Your task to perform on an android device: Is it going to rain this weekend? Image 0: 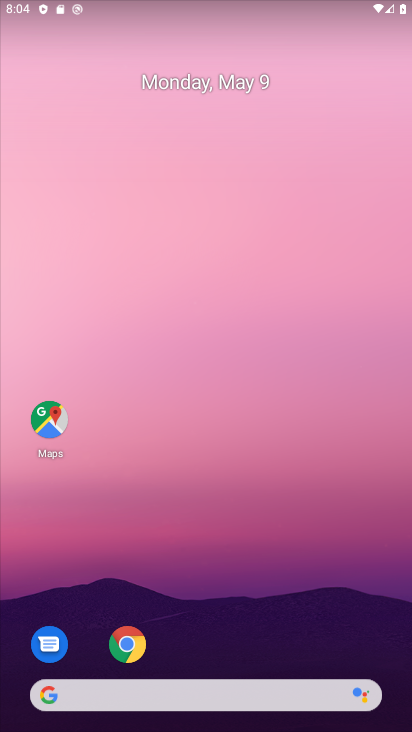
Step 0: drag from (289, 610) to (308, 147)
Your task to perform on an android device: Is it going to rain this weekend? Image 1: 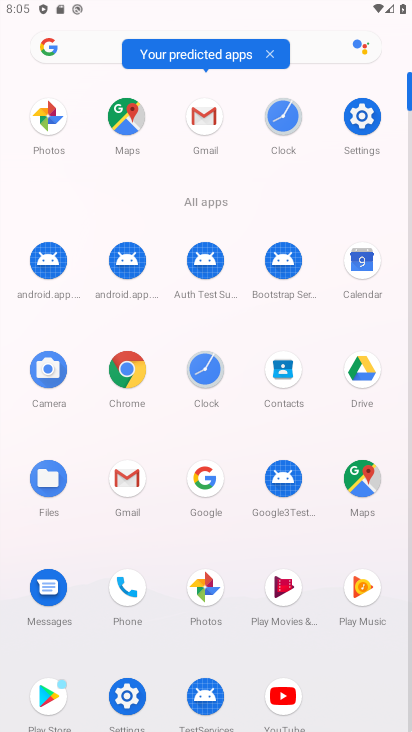
Step 1: click (113, 376)
Your task to perform on an android device: Is it going to rain this weekend? Image 2: 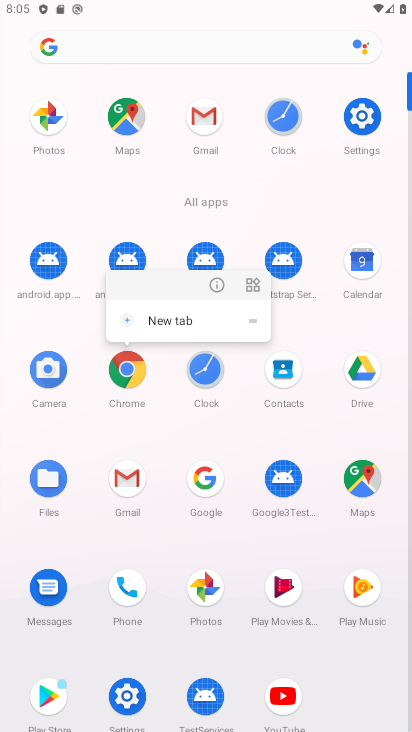
Step 2: click (126, 375)
Your task to perform on an android device: Is it going to rain this weekend? Image 3: 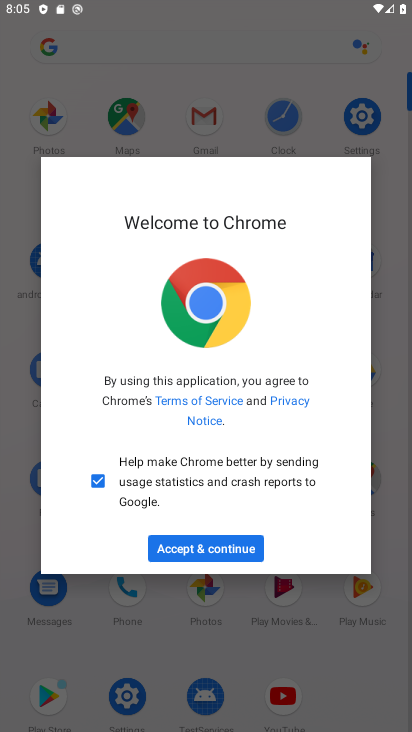
Step 3: click (228, 551)
Your task to perform on an android device: Is it going to rain this weekend? Image 4: 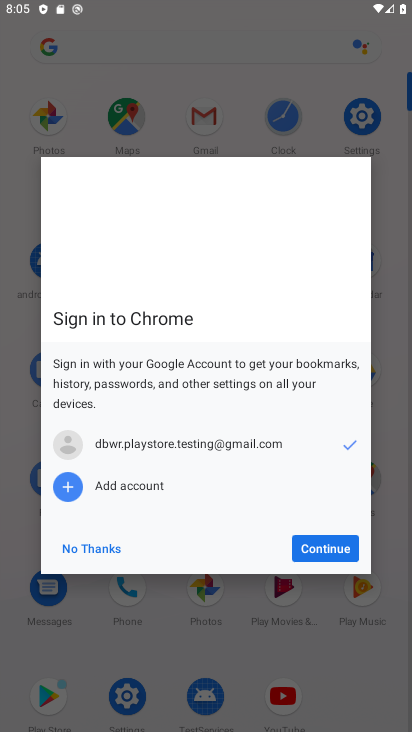
Step 4: click (312, 557)
Your task to perform on an android device: Is it going to rain this weekend? Image 5: 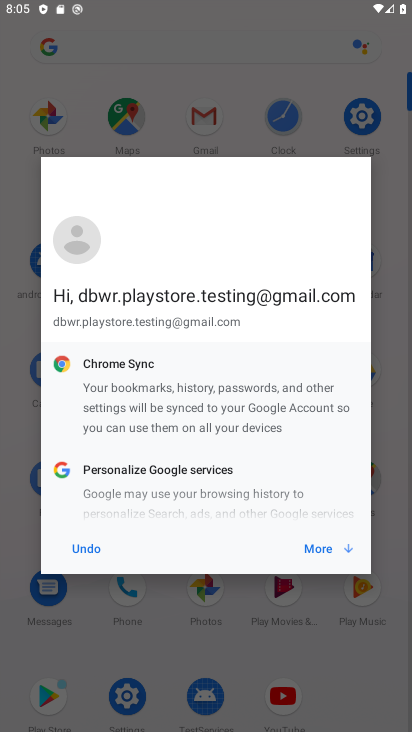
Step 5: click (312, 557)
Your task to perform on an android device: Is it going to rain this weekend? Image 6: 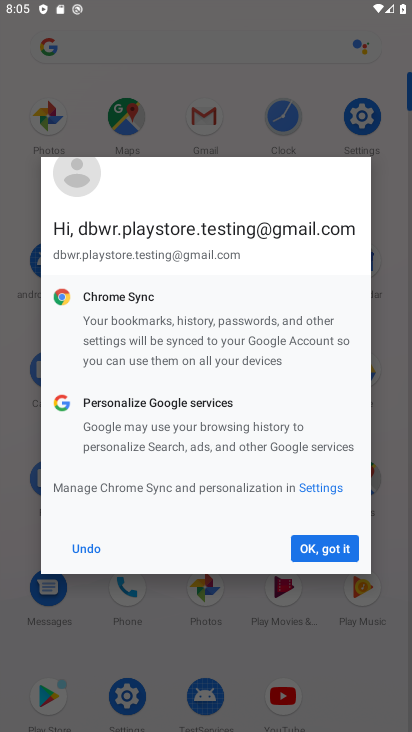
Step 6: click (312, 557)
Your task to perform on an android device: Is it going to rain this weekend? Image 7: 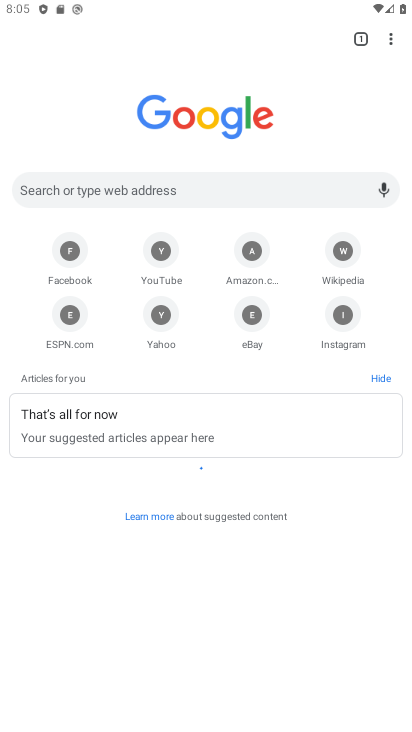
Step 7: click (162, 193)
Your task to perform on an android device: Is it going to rain this weekend? Image 8: 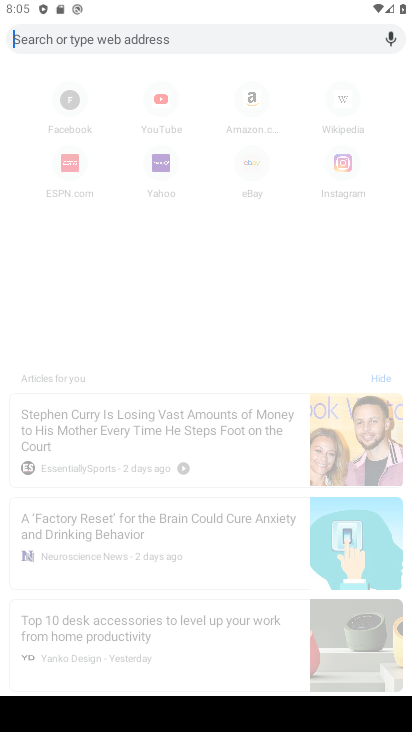
Step 8: type "is it going to rain this weekend"
Your task to perform on an android device: Is it going to rain this weekend? Image 9: 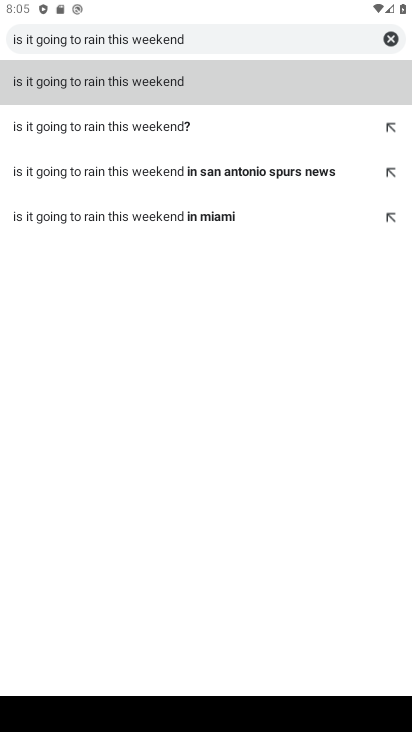
Step 9: click (143, 128)
Your task to perform on an android device: Is it going to rain this weekend? Image 10: 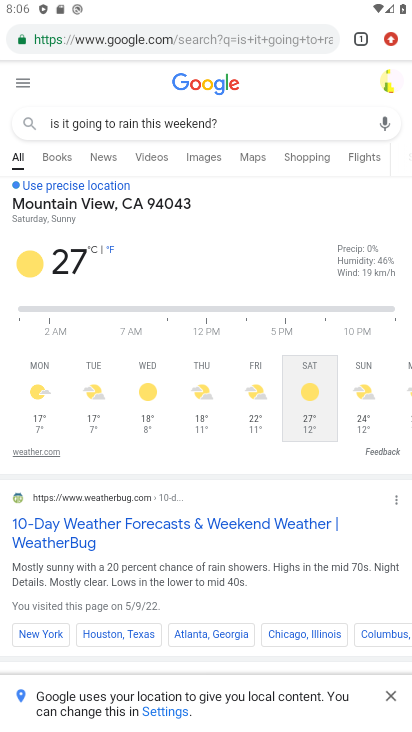
Step 10: task complete